Your task to perform on an android device: turn on bluetooth scan Image 0: 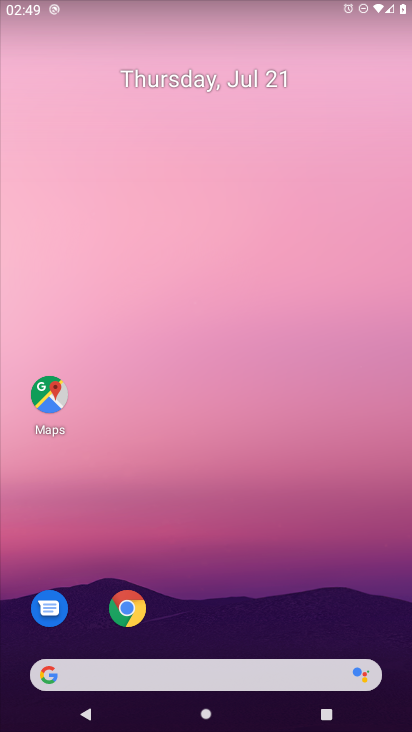
Step 0: press home button
Your task to perform on an android device: turn on bluetooth scan Image 1: 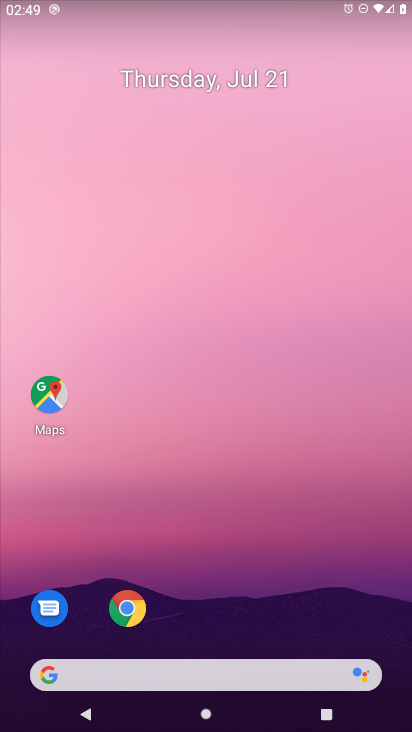
Step 1: drag from (201, 634) to (243, 34)
Your task to perform on an android device: turn on bluetooth scan Image 2: 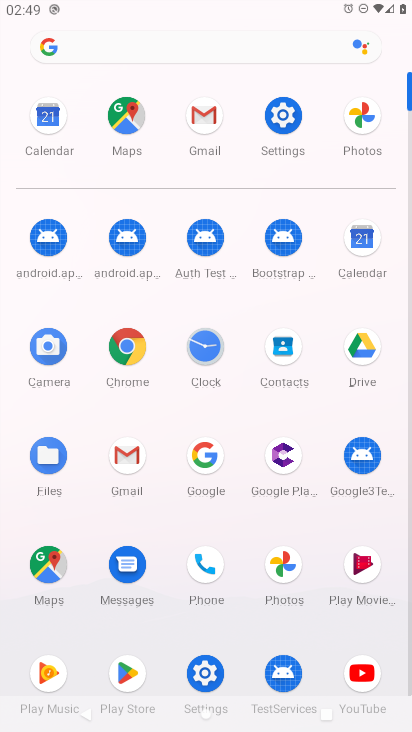
Step 2: click (288, 120)
Your task to perform on an android device: turn on bluetooth scan Image 3: 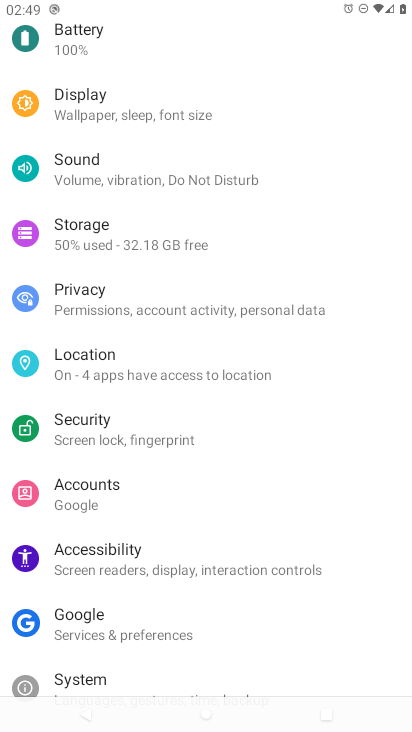
Step 3: click (68, 372)
Your task to perform on an android device: turn on bluetooth scan Image 4: 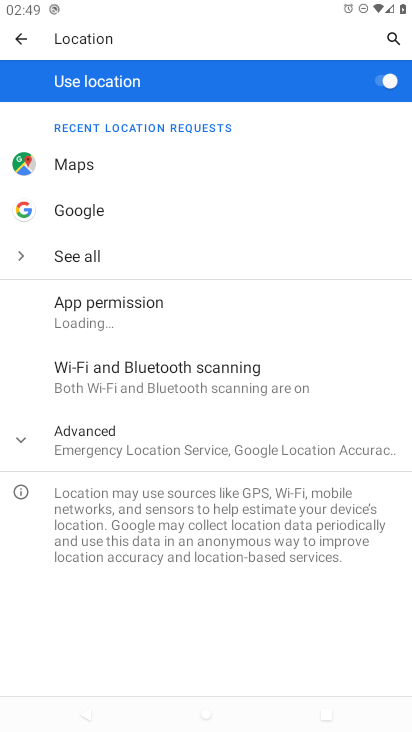
Step 4: click (138, 381)
Your task to perform on an android device: turn on bluetooth scan Image 5: 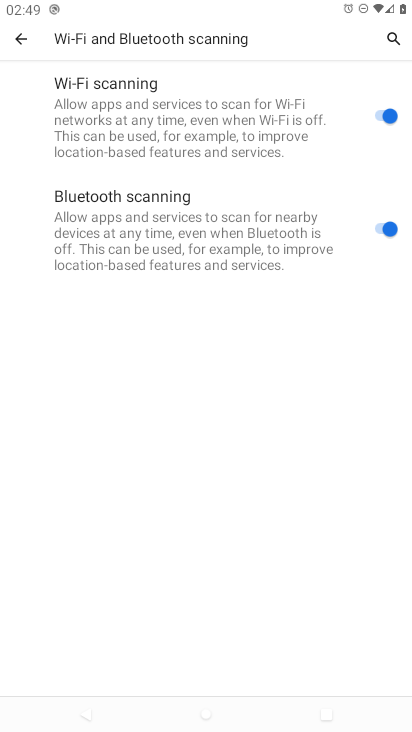
Step 5: task complete